Your task to perform on an android device: Go to internet settings Image 0: 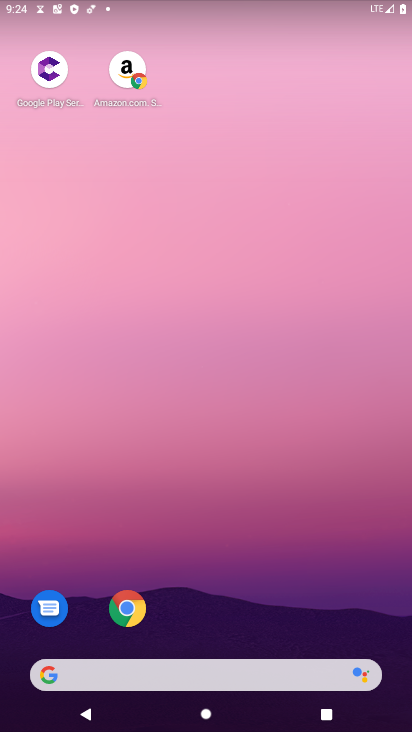
Step 0: drag from (353, 598) to (324, 81)
Your task to perform on an android device: Go to internet settings Image 1: 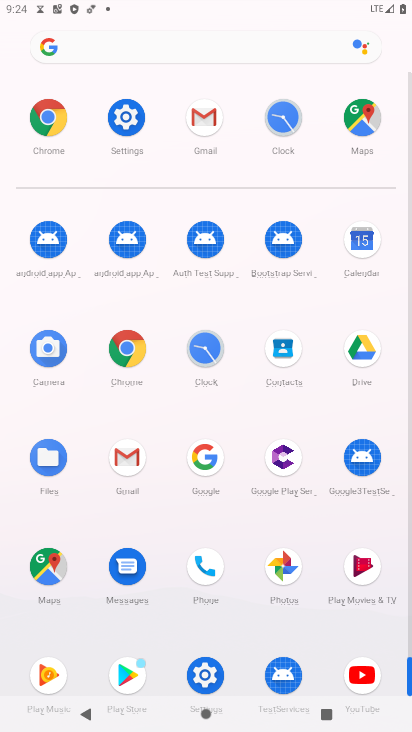
Step 1: click (151, 110)
Your task to perform on an android device: Go to internet settings Image 2: 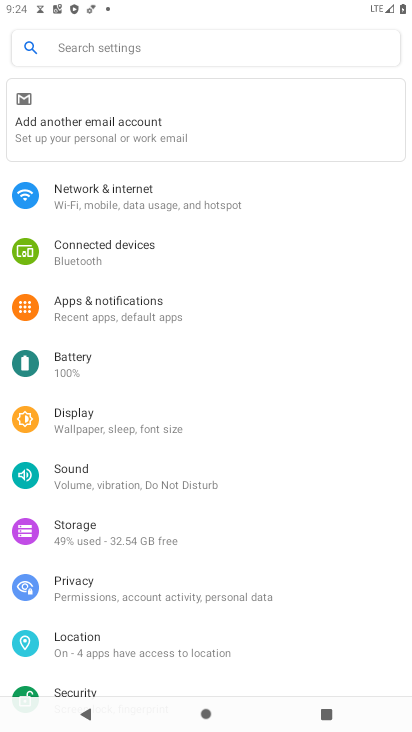
Step 2: click (87, 183)
Your task to perform on an android device: Go to internet settings Image 3: 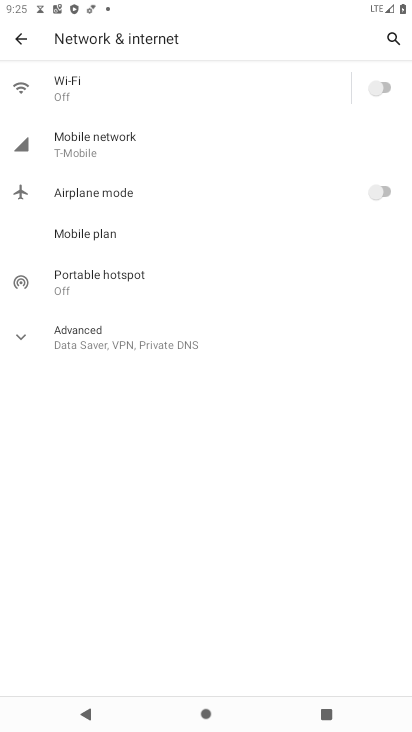
Step 3: click (87, 140)
Your task to perform on an android device: Go to internet settings Image 4: 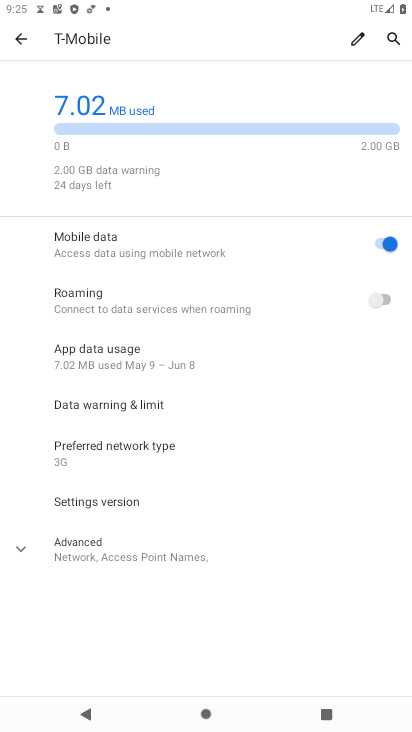
Step 4: task complete